Your task to perform on an android device: toggle data saver in the chrome app Image 0: 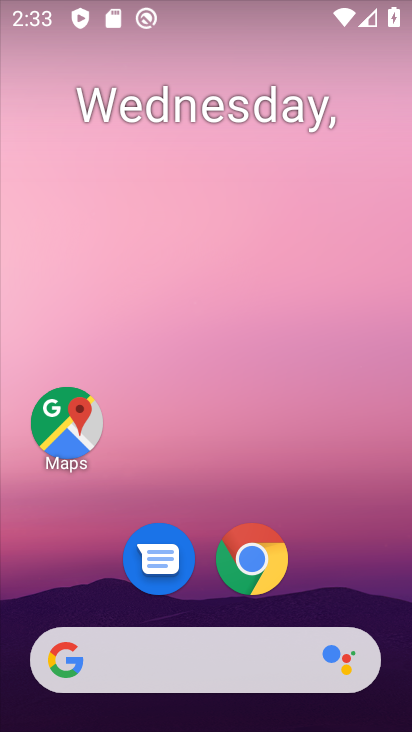
Step 0: drag from (267, 686) to (266, 127)
Your task to perform on an android device: toggle data saver in the chrome app Image 1: 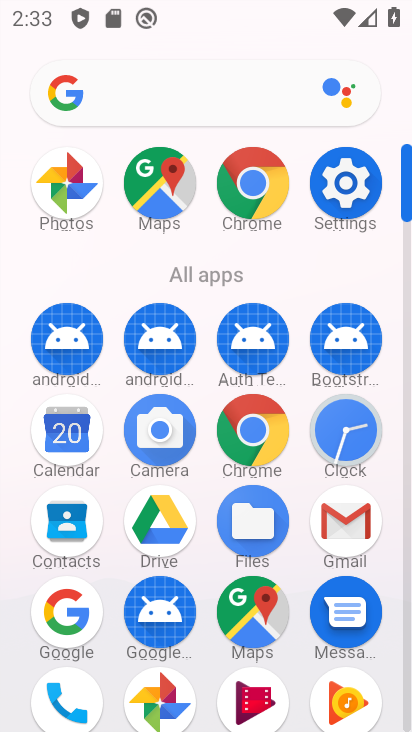
Step 1: click (248, 185)
Your task to perform on an android device: toggle data saver in the chrome app Image 2: 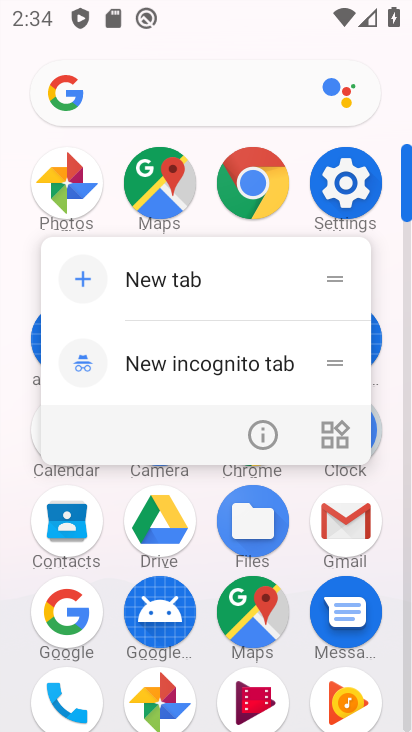
Step 2: click (234, 185)
Your task to perform on an android device: toggle data saver in the chrome app Image 3: 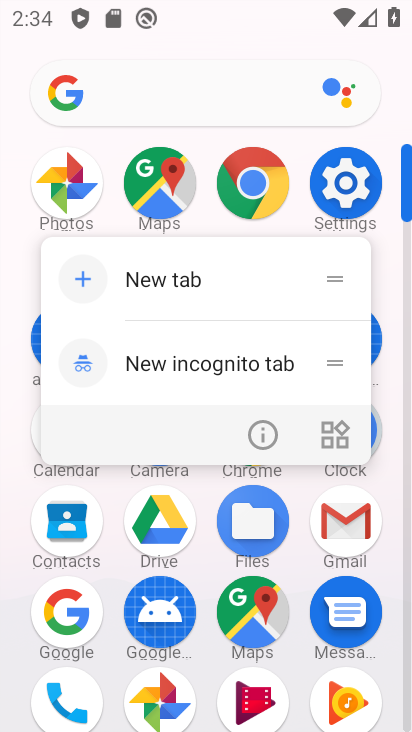
Step 3: click (234, 185)
Your task to perform on an android device: toggle data saver in the chrome app Image 4: 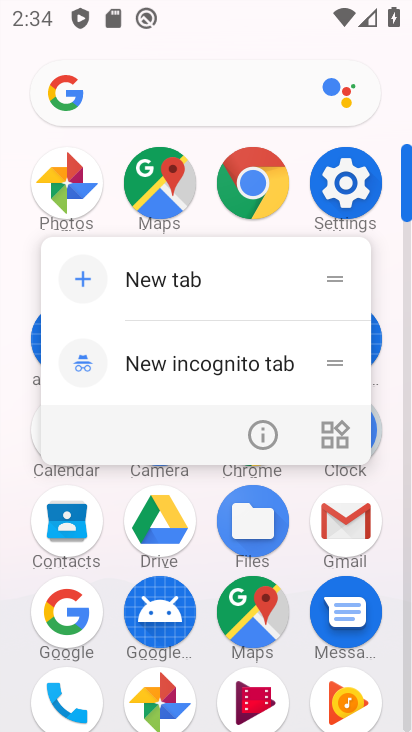
Step 4: click (234, 185)
Your task to perform on an android device: toggle data saver in the chrome app Image 5: 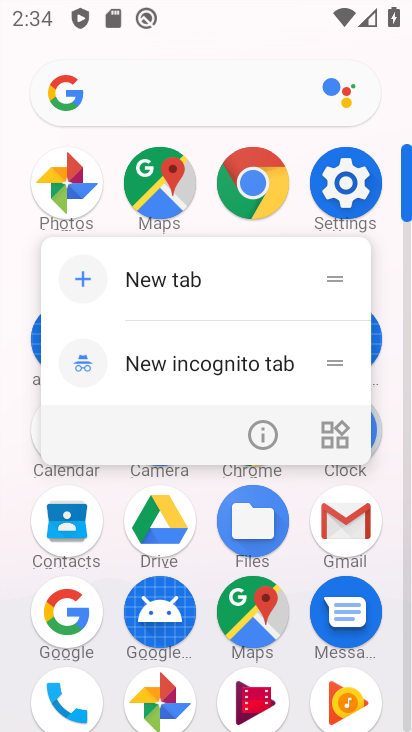
Step 5: click (234, 185)
Your task to perform on an android device: toggle data saver in the chrome app Image 6: 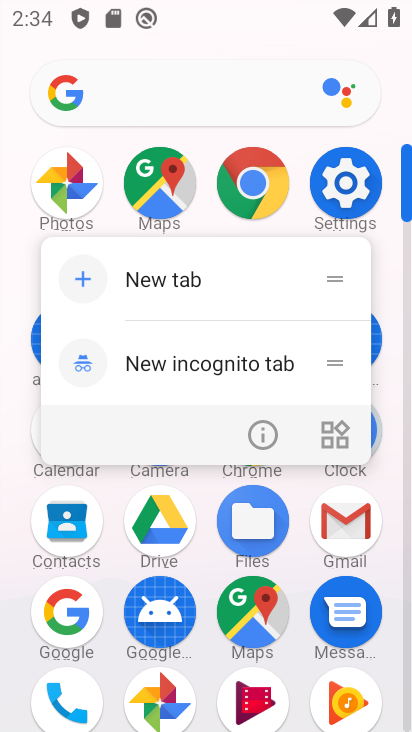
Step 6: click (234, 185)
Your task to perform on an android device: toggle data saver in the chrome app Image 7: 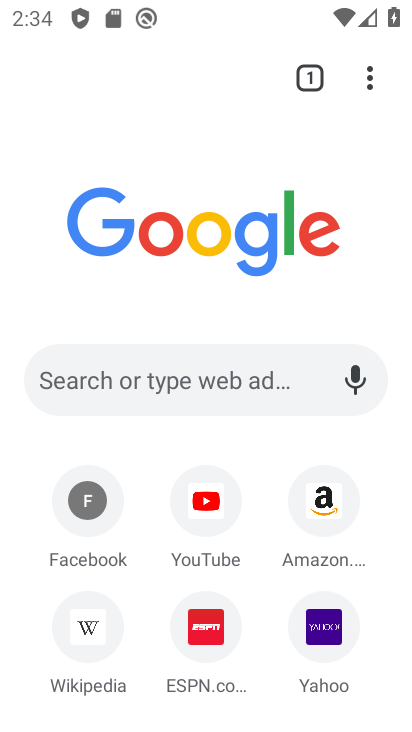
Step 7: drag from (234, 185) to (372, 74)
Your task to perform on an android device: toggle data saver in the chrome app Image 8: 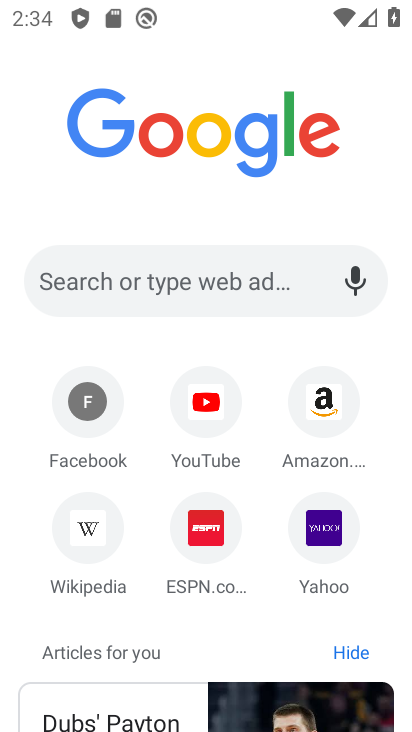
Step 8: drag from (373, 68) to (342, 113)
Your task to perform on an android device: toggle data saver in the chrome app Image 9: 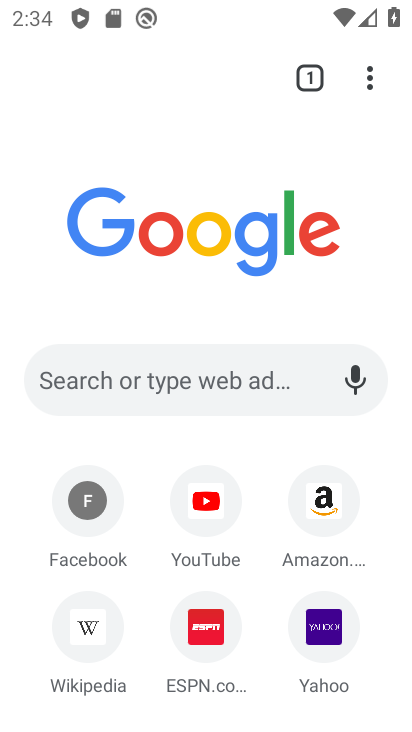
Step 9: drag from (330, 137) to (302, 310)
Your task to perform on an android device: toggle data saver in the chrome app Image 10: 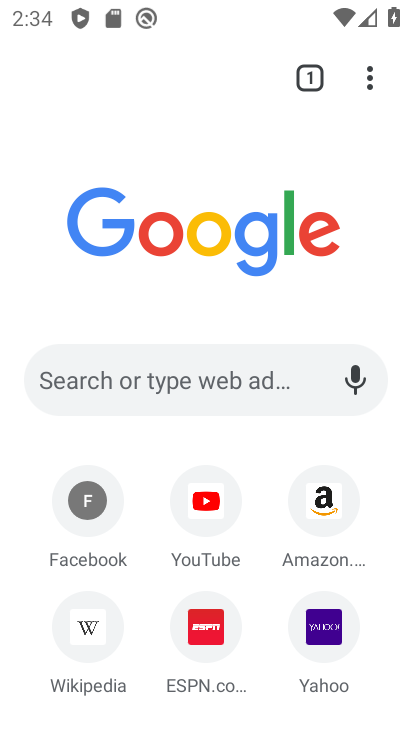
Step 10: click (367, 89)
Your task to perform on an android device: toggle data saver in the chrome app Image 11: 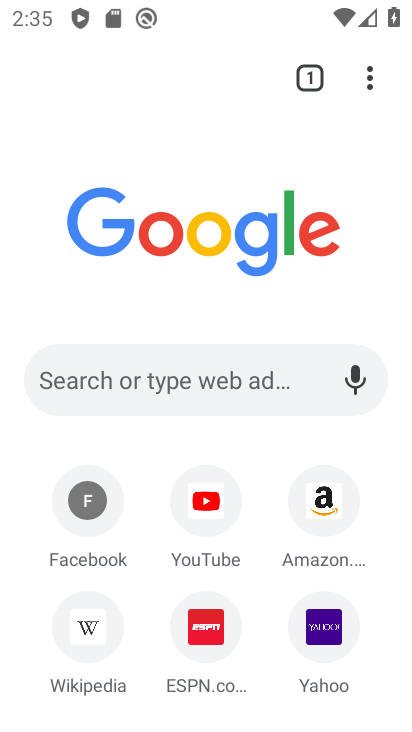
Step 11: click (366, 74)
Your task to perform on an android device: toggle data saver in the chrome app Image 12: 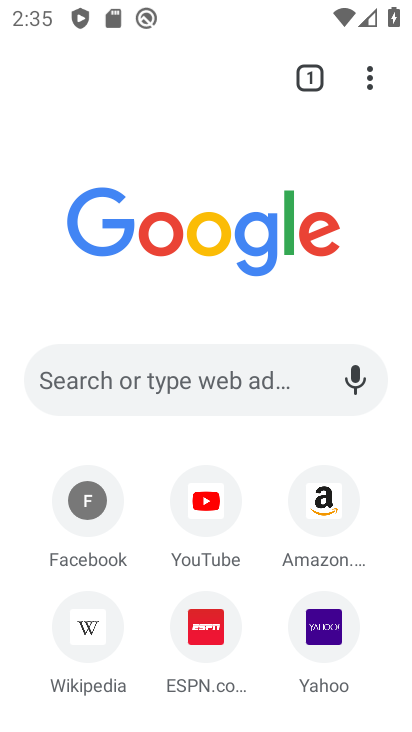
Step 12: click (365, 81)
Your task to perform on an android device: toggle data saver in the chrome app Image 13: 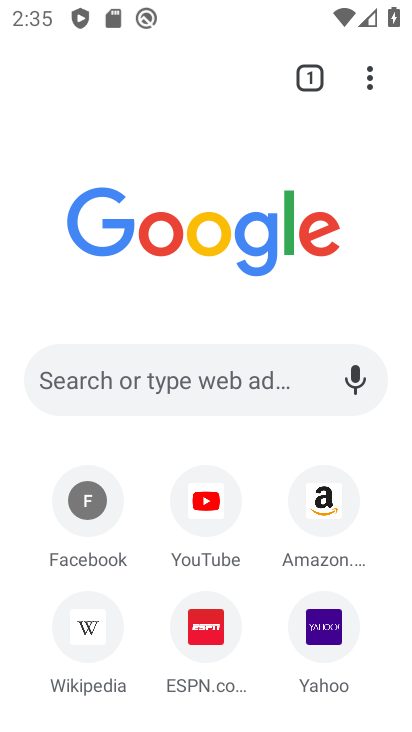
Step 13: click (367, 79)
Your task to perform on an android device: toggle data saver in the chrome app Image 14: 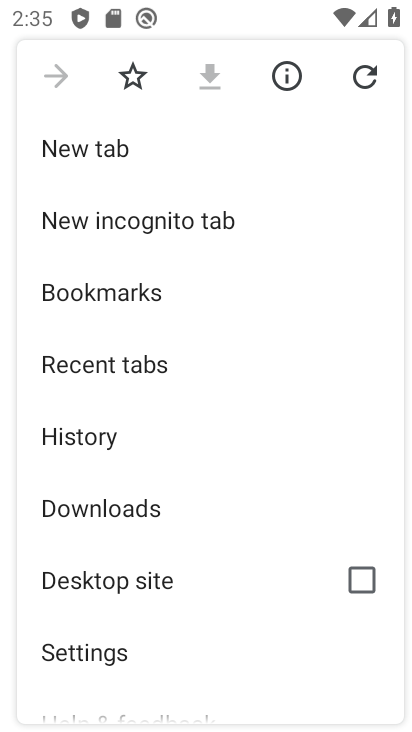
Step 14: click (87, 643)
Your task to perform on an android device: toggle data saver in the chrome app Image 15: 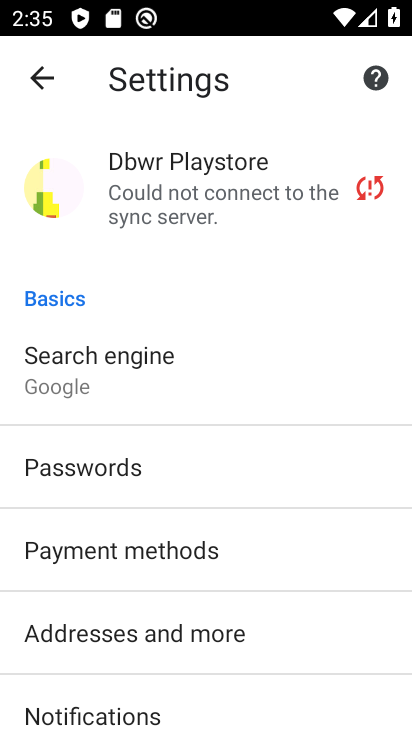
Step 15: drag from (90, 640) to (144, 492)
Your task to perform on an android device: toggle data saver in the chrome app Image 16: 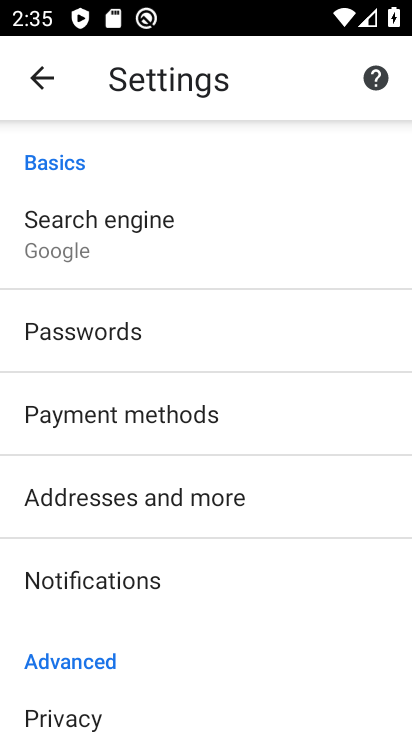
Step 16: drag from (99, 639) to (194, 319)
Your task to perform on an android device: toggle data saver in the chrome app Image 17: 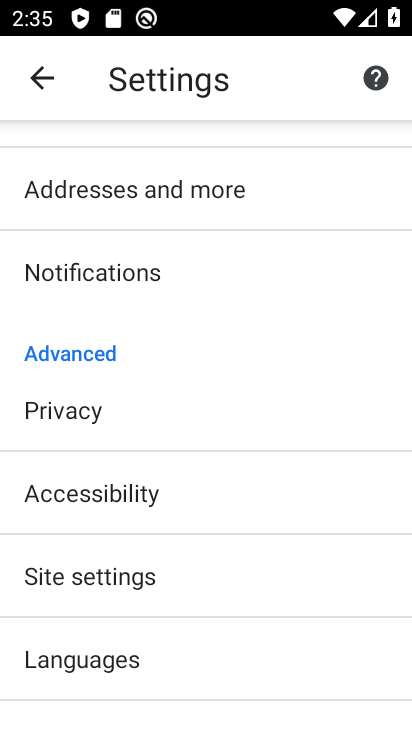
Step 17: drag from (108, 627) to (145, 535)
Your task to perform on an android device: toggle data saver in the chrome app Image 18: 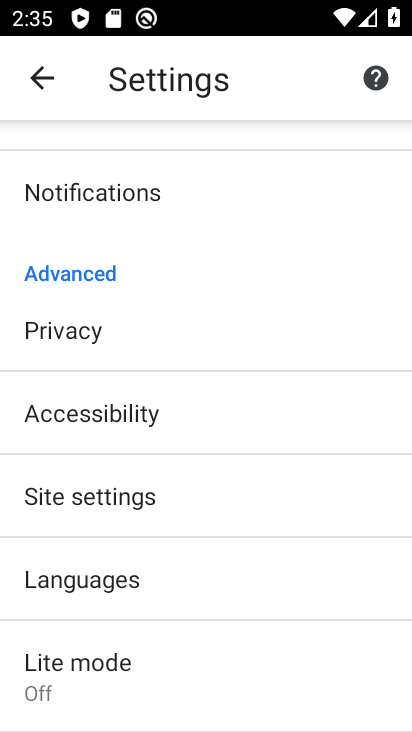
Step 18: click (77, 661)
Your task to perform on an android device: toggle data saver in the chrome app Image 19: 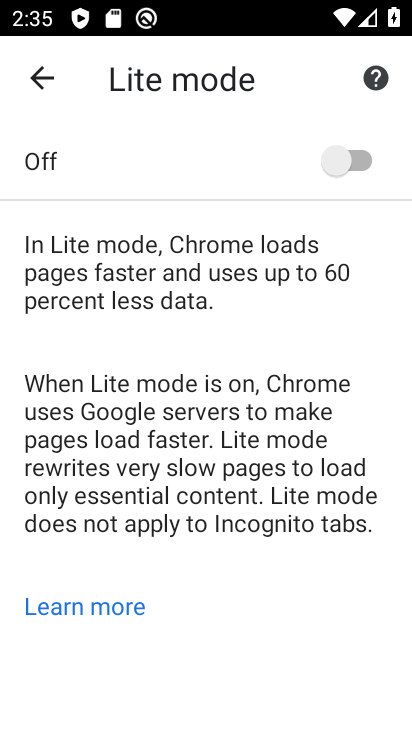
Step 19: click (314, 165)
Your task to perform on an android device: toggle data saver in the chrome app Image 20: 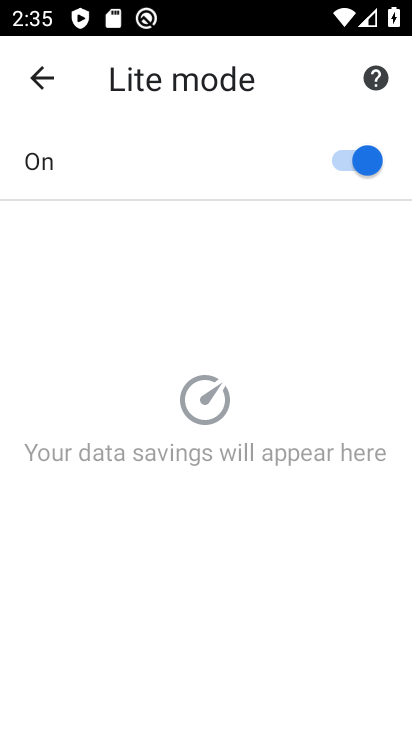
Step 20: click (314, 165)
Your task to perform on an android device: toggle data saver in the chrome app Image 21: 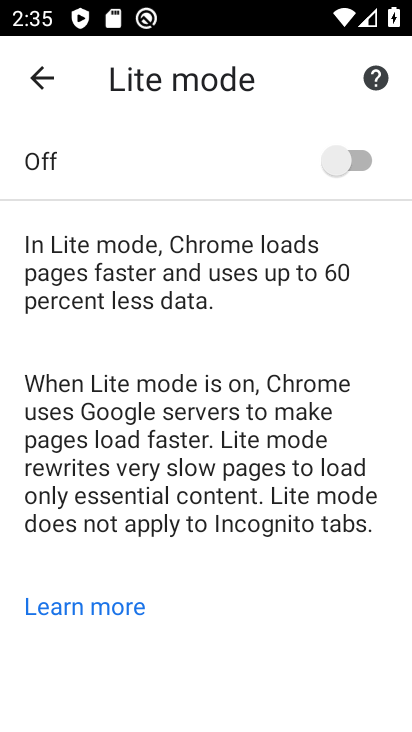
Step 21: task complete